Your task to perform on an android device: Open privacy settings Image 0: 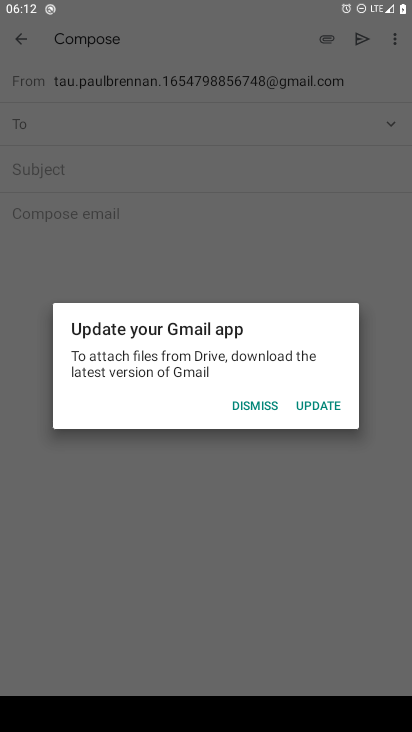
Step 0: press home button
Your task to perform on an android device: Open privacy settings Image 1: 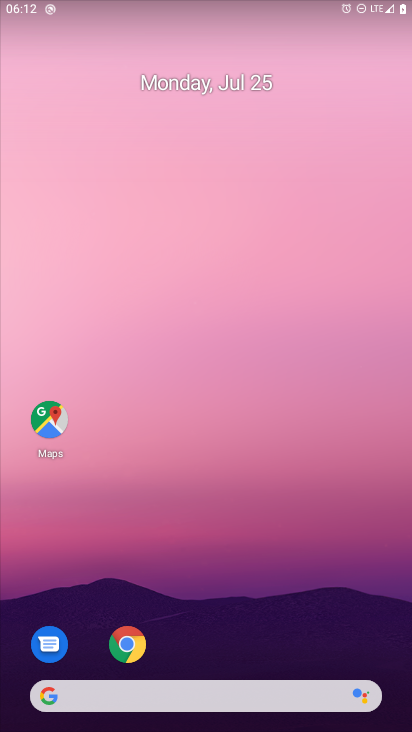
Step 1: drag from (261, 626) to (195, 132)
Your task to perform on an android device: Open privacy settings Image 2: 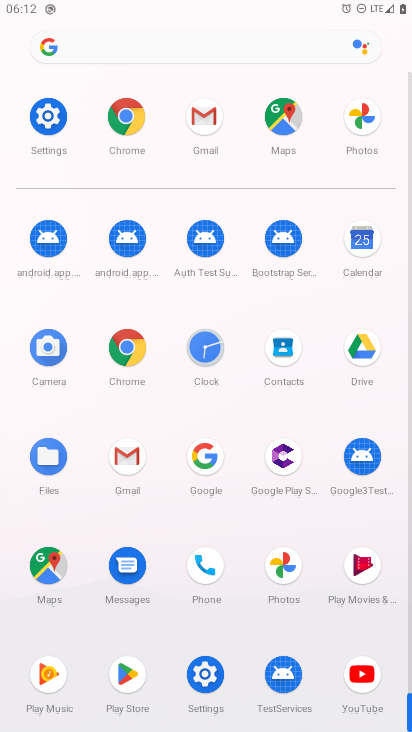
Step 2: click (44, 115)
Your task to perform on an android device: Open privacy settings Image 3: 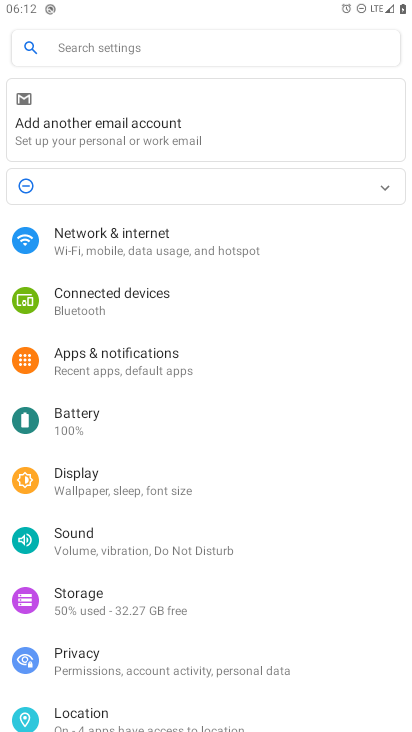
Step 3: click (82, 658)
Your task to perform on an android device: Open privacy settings Image 4: 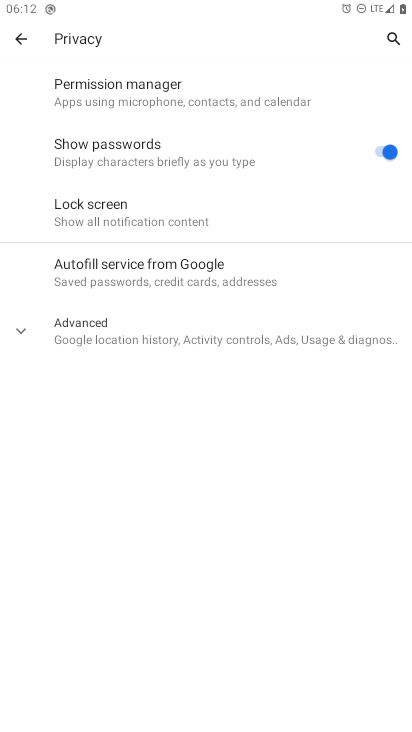
Step 4: task complete